Your task to perform on an android device: Open sound settings Image 0: 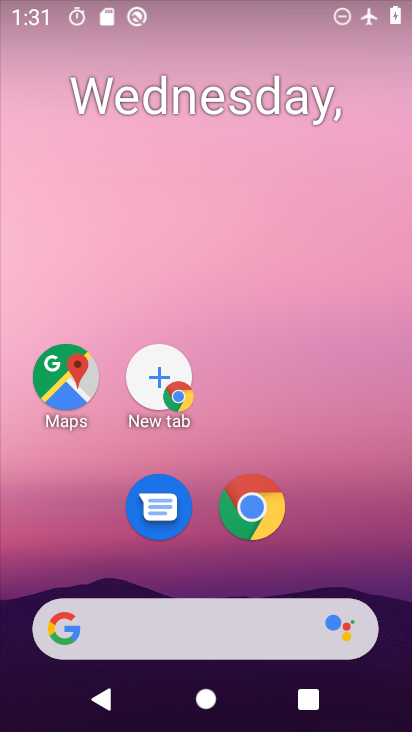
Step 0: drag from (408, 480) to (407, 190)
Your task to perform on an android device: Open sound settings Image 1: 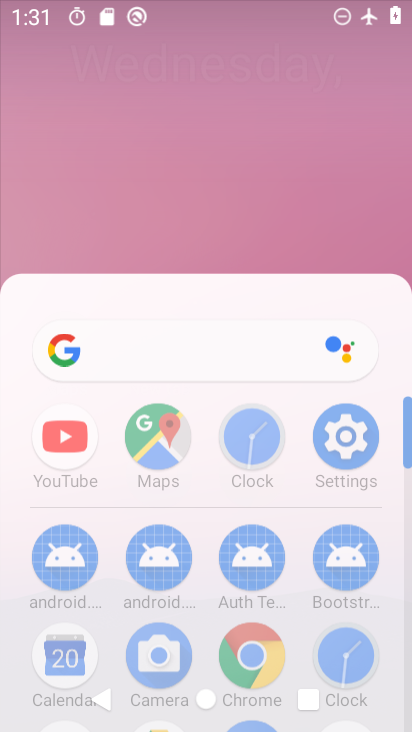
Step 1: drag from (323, 505) to (380, 101)
Your task to perform on an android device: Open sound settings Image 2: 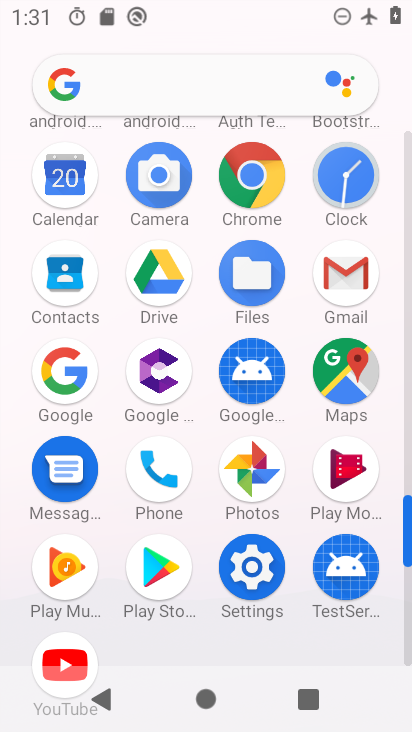
Step 2: click (272, 572)
Your task to perform on an android device: Open sound settings Image 3: 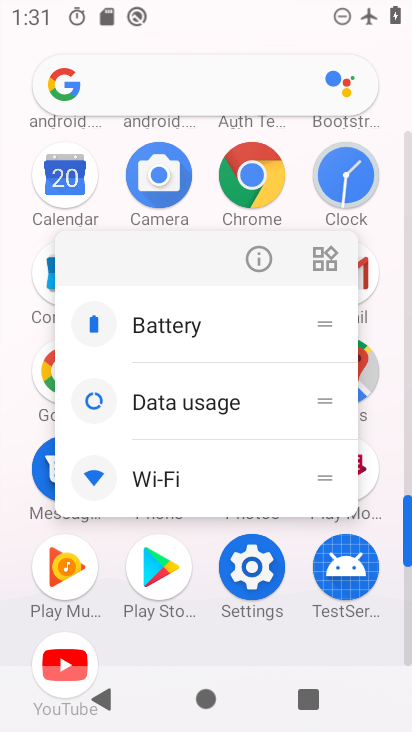
Step 3: click (269, 571)
Your task to perform on an android device: Open sound settings Image 4: 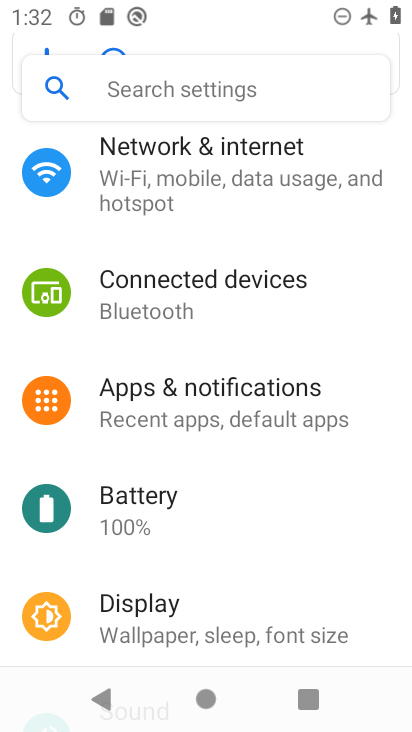
Step 4: drag from (265, 544) to (280, 178)
Your task to perform on an android device: Open sound settings Image 5: 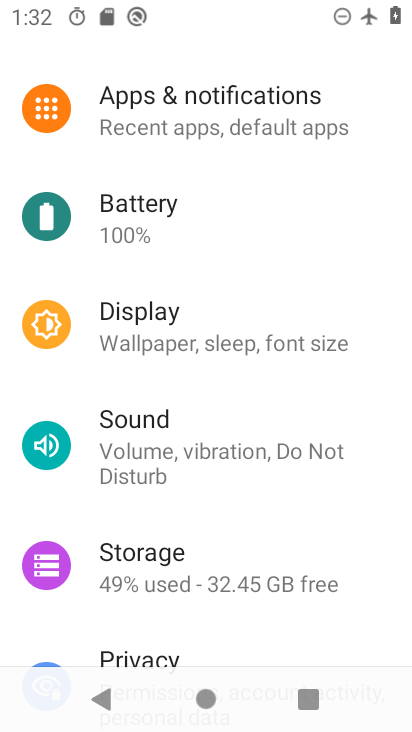
Step 5: click (180, 438)
Your task to perform on an android device: Open sound settings Image 6: 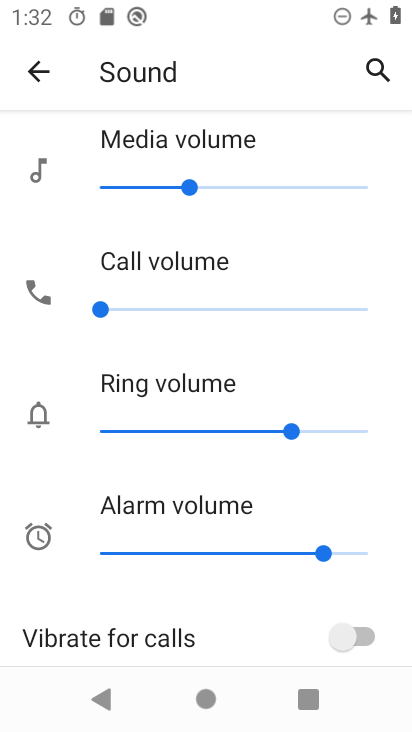
Step 6: task complete